Your task to perform on an android device: turn off sleep mode Image 0: 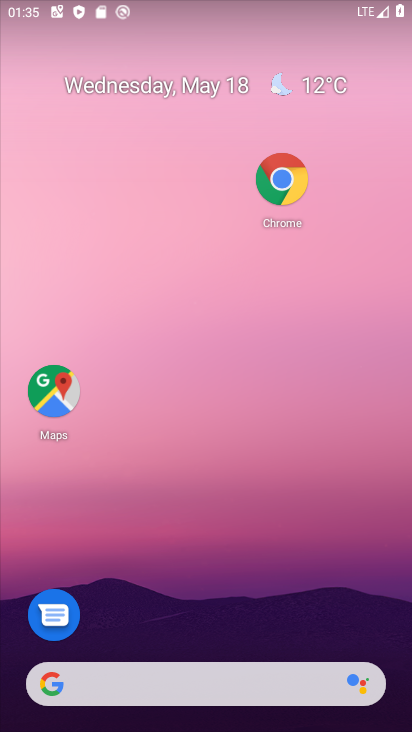
Step 0: press home button
Your task to perform on an android device: turn off sleep mode Image 1: 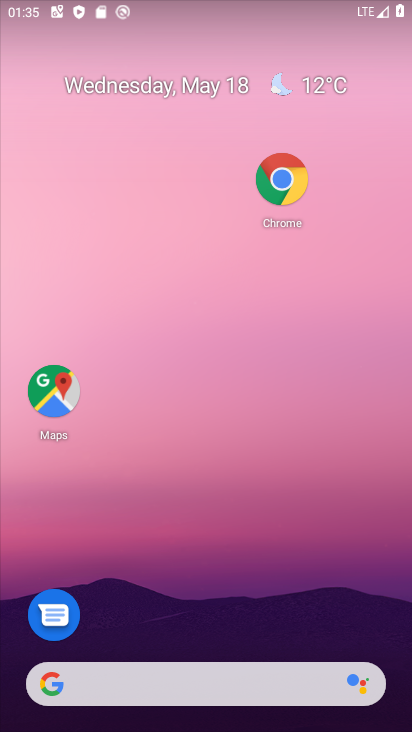
Step 1: drag from (158, 683) to (299, 148)
Your task to perform on an android device: turn off sleep mode Image 2: 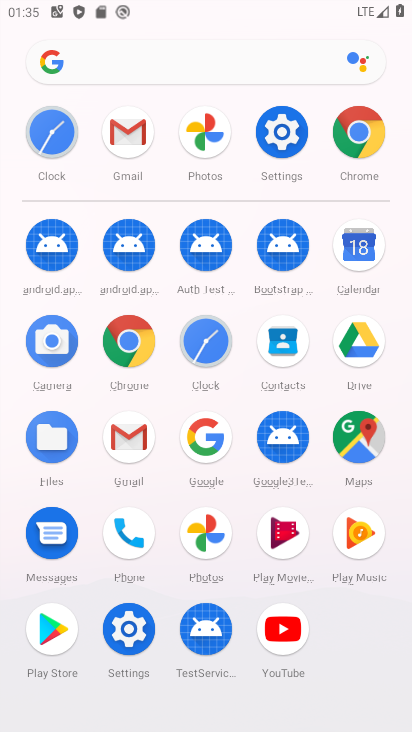
Step 2: click (290, 146)
Your task to perform on an android device: turn off sleep mode Image 3: 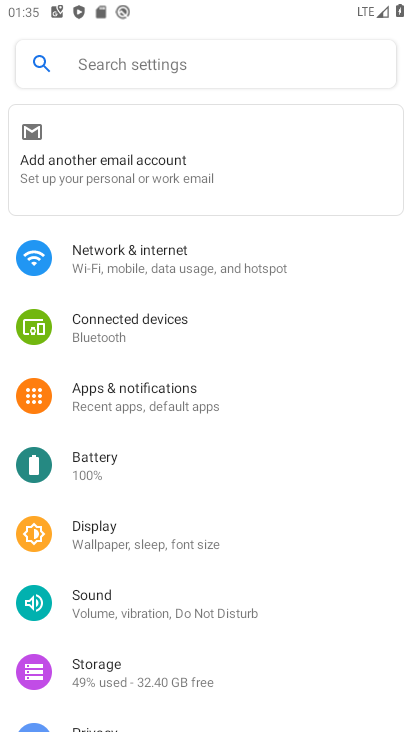
Step 3: drag from (215, 510) to (275, 305)
Your task to perform on an android device: turn off sleep mode Image 4: 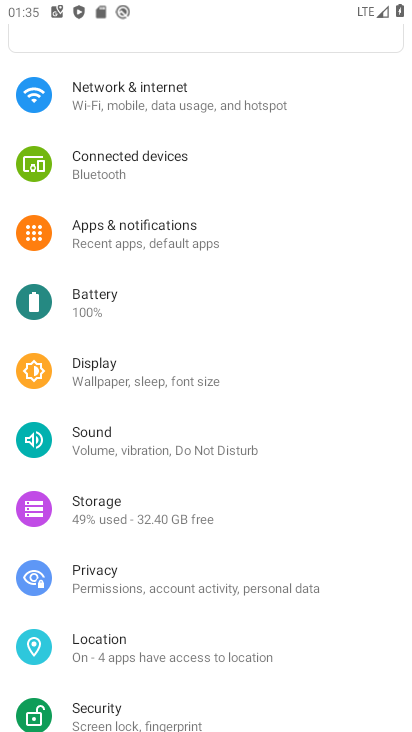
Step 4: click (151, 376)
Your task to perform on an android device: turn off sleep mode Image 5: 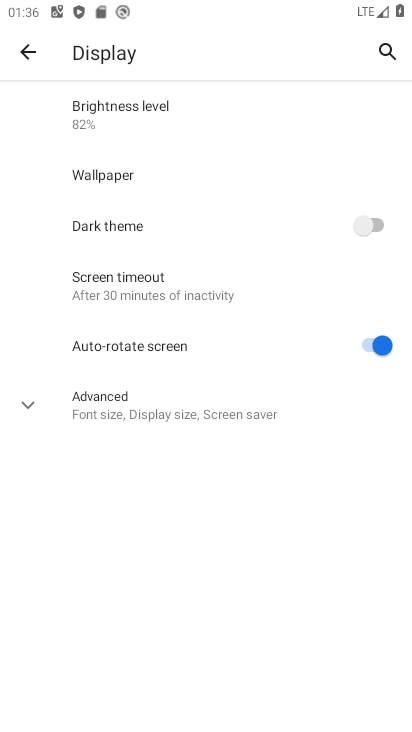
Step 5: task complete